Your task to perform on an android device: Open calendar and show me the first week of next month Image 0: 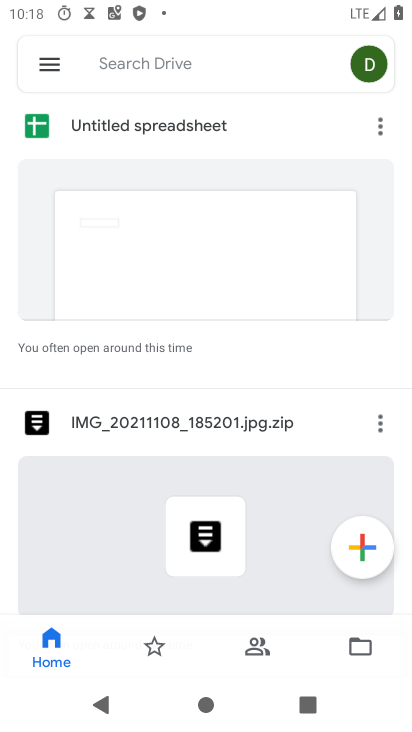
Step 0: press home button
Your task to perform on an android device: Open calendar and show me the first week of next month Image 1: 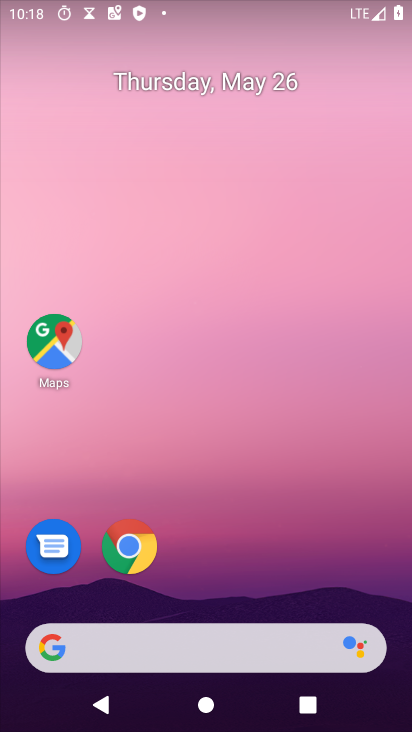
Step 1: drag from (363, 573) to (354, 110)
Your task to perform on an android device: Open calendar and show me the first week of next month Image 2: 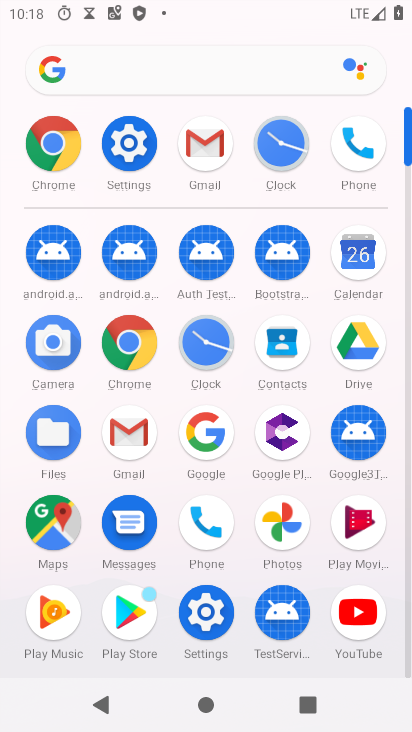
Step 2: click (358, 251)
Your task to perform on an android device: Open calendar and show me the first week of next month Image 3: 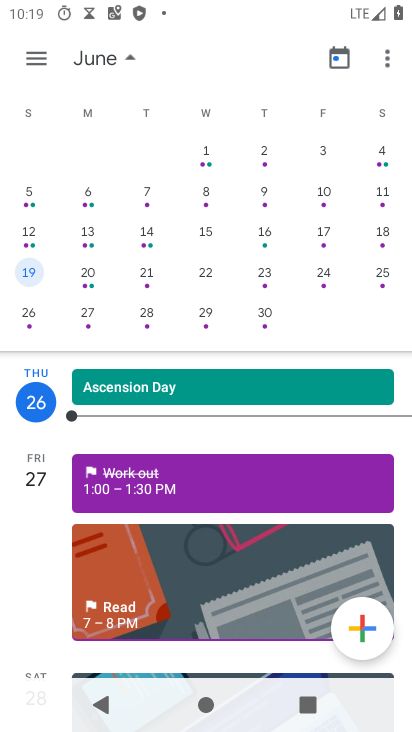
Step 3: click (202, 155)
Your task to perform on an android device: Open calendar and show me the first week of next month Image 4: 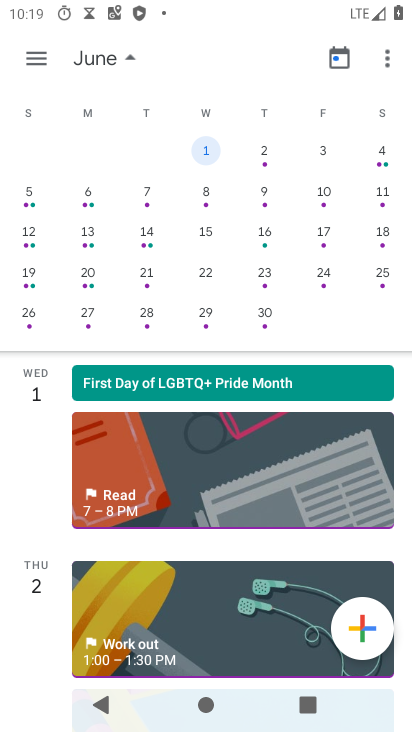
Step 4: task complete